Your task to perform on an android device: turn on data saver in the chrome app Image 0: 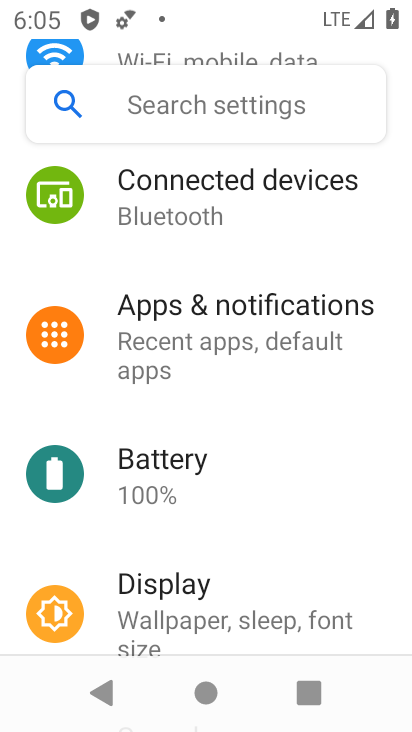
Step 0: press home button
Your task to perform on an android device: turn on data saver in the chrome app Image 1: 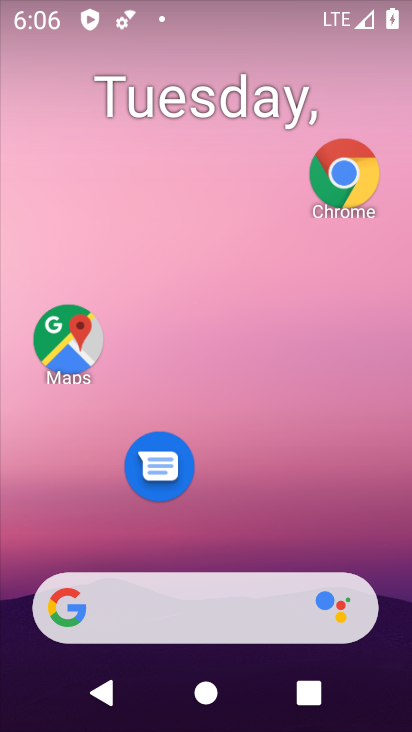
Step 1: click (365, 185)
Your task to perform on an android device: turn on data saver in the chrome app Image 2: 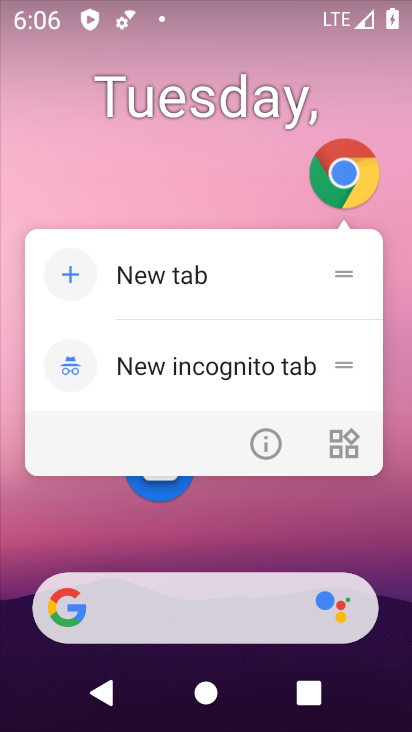
Step 2: click (201, 157)
Your task to perform on an android device: turn on data saver in the chrome app Image 3: 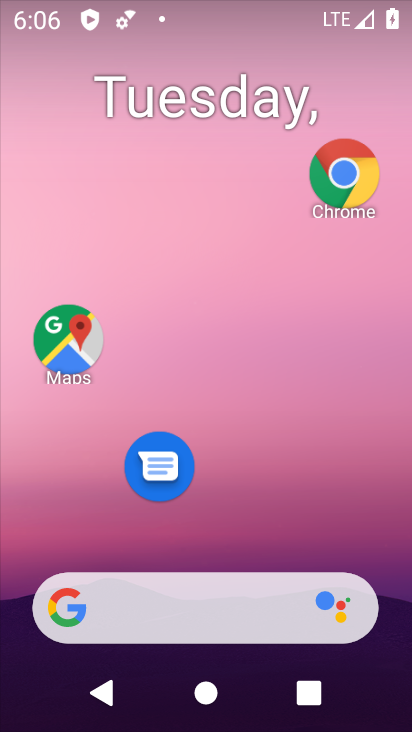
Step 3: click (316, 191)
Your task to perform on an android device: turn on data saver in the chrome app Image 4: 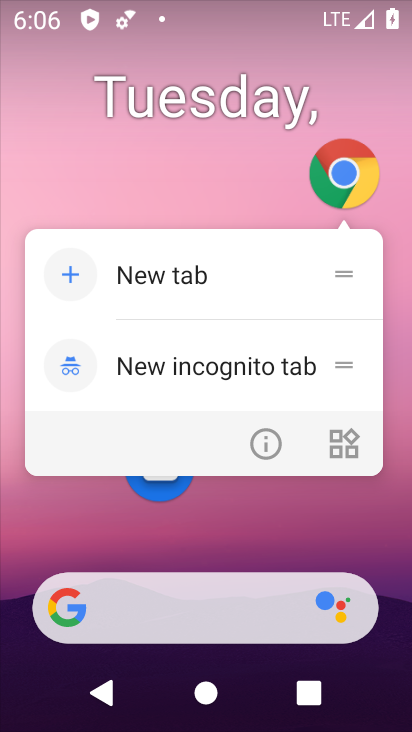
Step 4: click (345, 163)
Your task to perform on an android device: turn on data saver in the chrome app Image 5: 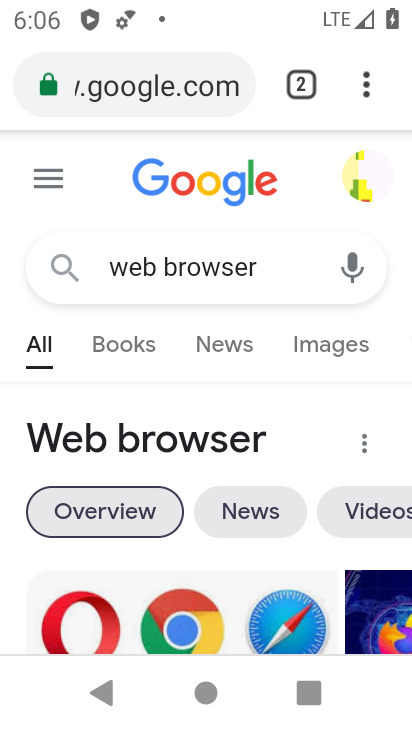
Step 5: click (112, 95)
Your task to perform on an android device: turn on data saver in the chrome app Image 6: 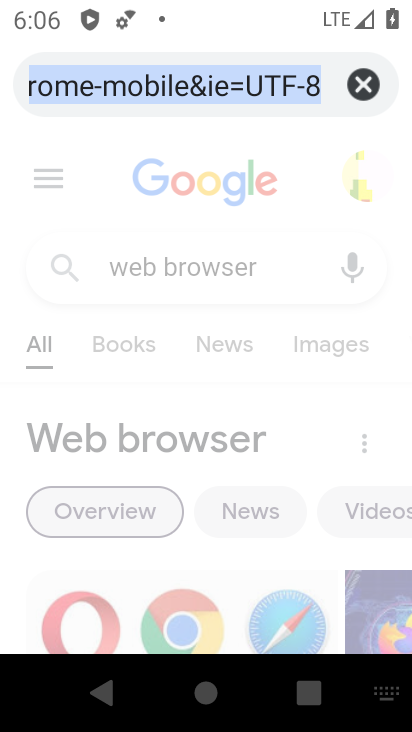
Step 6: click (211, 343)
Your task to perform on an android device: turn on data saver in the chrome app Image 7: 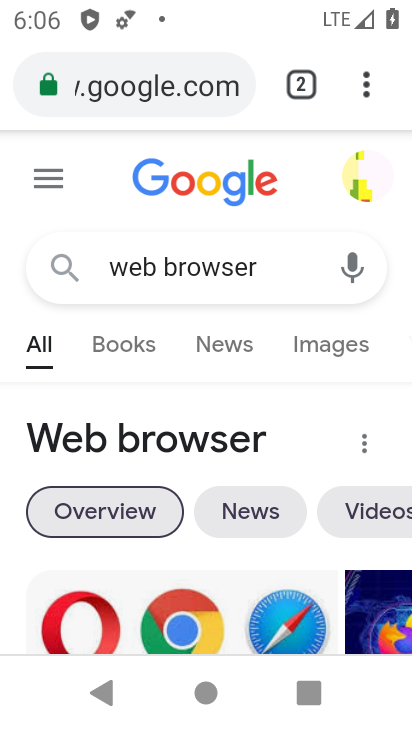
Step 7: drag from (362, 97) to (194, 504)
Your task to perform on an android device: turn on data saver in the chrome app Image 8: 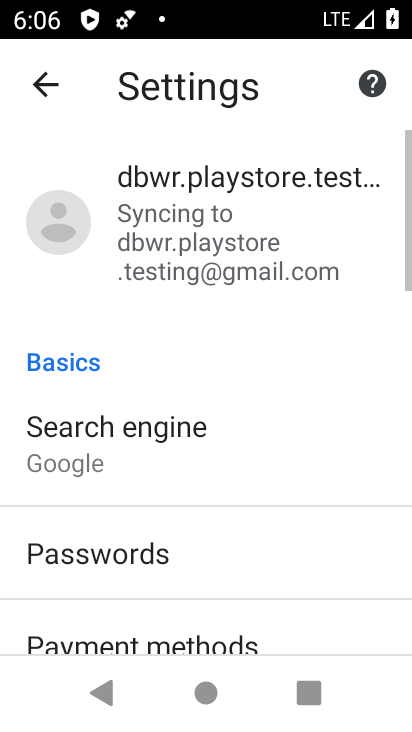
Step 8: drag from (109, 626) to (159, 106)
Your task to perform on an android device: turn on data saver in the chrome app Image 9: 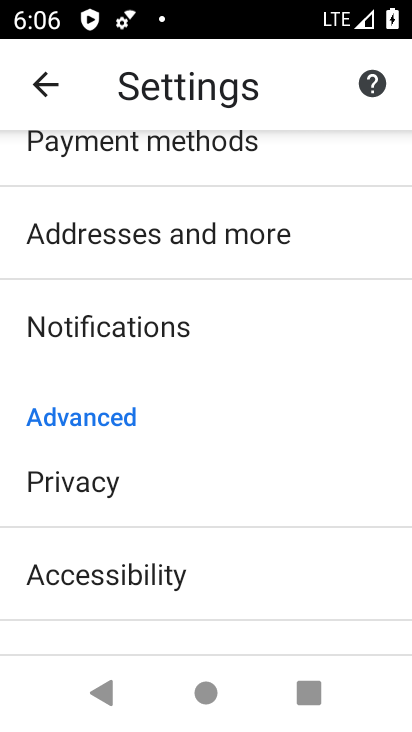
Step 9: drag from (207, 556) to (231, 215)
Your task to perform on an android device: turn on data saver in the chrome app Image 10: 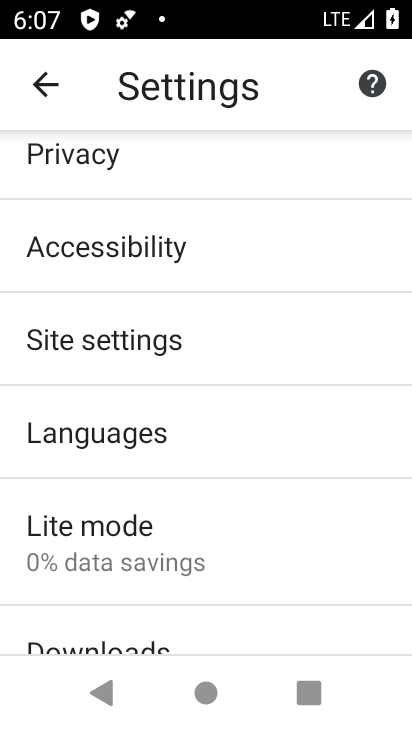
Step 10: click (194, 550)
Your task to perform on an android device: turn on data saver in the chrome app Image 11: 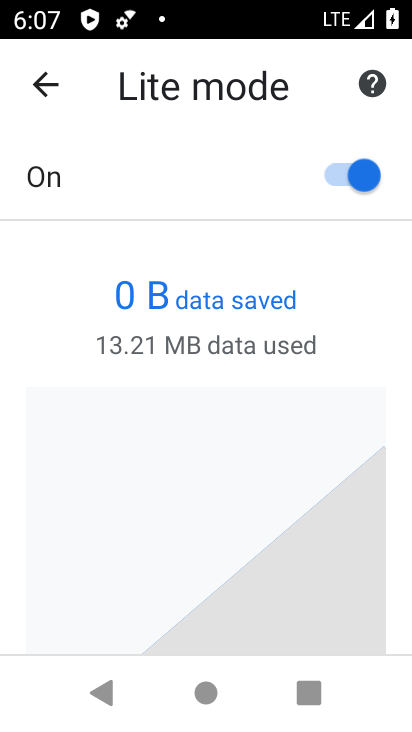
Step 11: task complete